Your task to perform on an android device: When is my next appointment? Image 0: 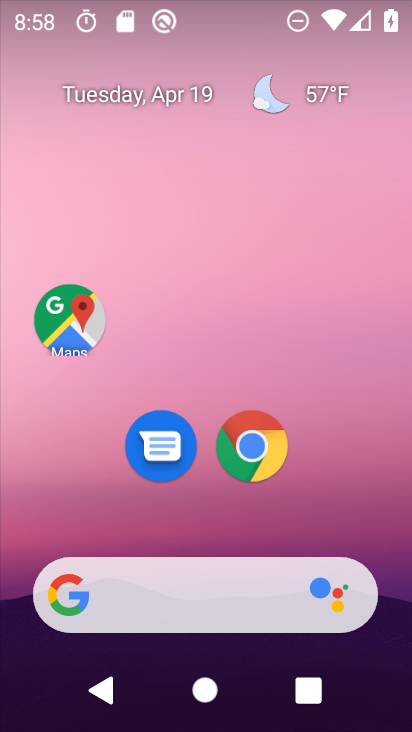
Step 0: press home button
Your task to perform on an android device: When is my next appointment? Image 1: 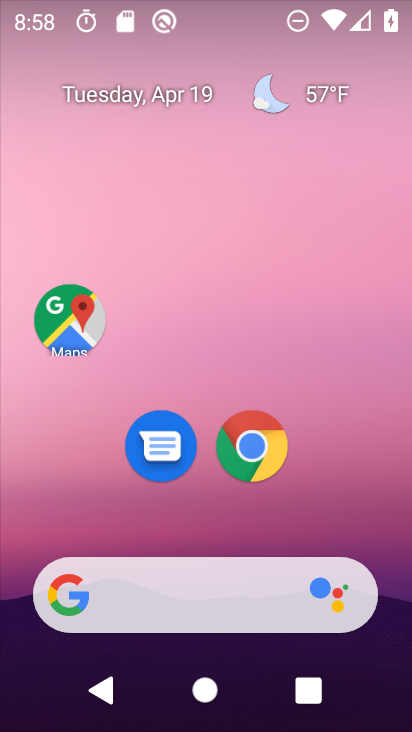
Step 1: drag from (331, 514) to (271, 130)
Your task to perform on an android device: When is my next appointment? Image 2: 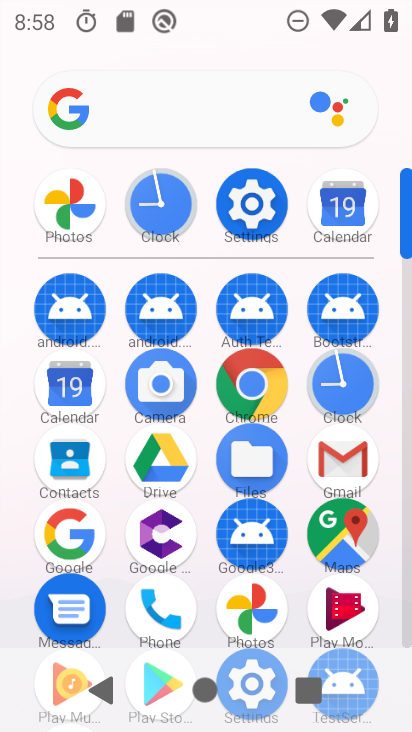
Step 2: click (347, 214)
Your task to perform on an android device: When is my next appointment? Image 3: 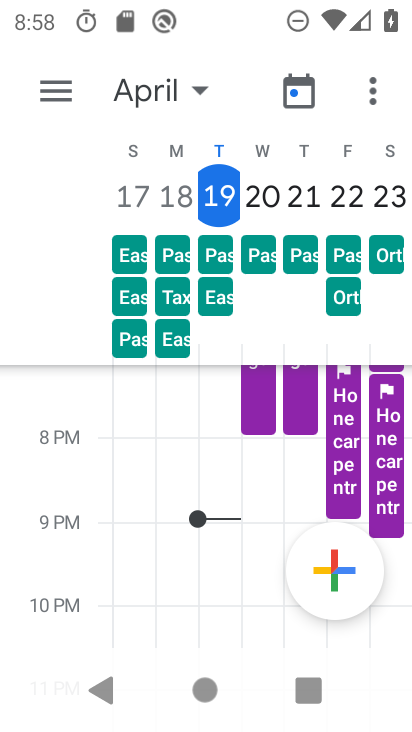
Step 3: drag from (208, 606) to (217, 375)
Your task to perform on an android device: When is my next appointment? Image 4: 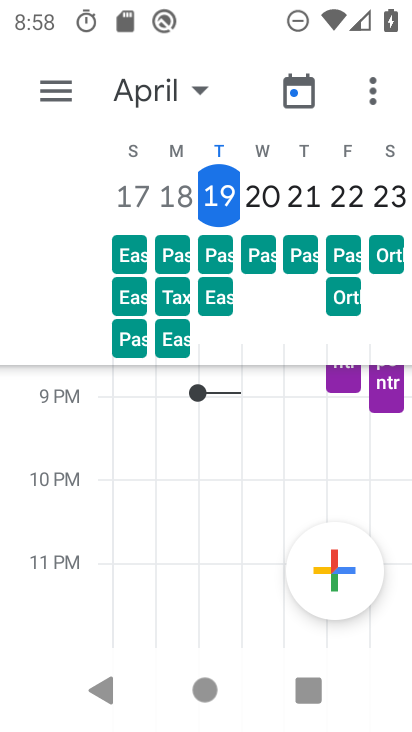
Step 4: drag from (218, 629) to (227, 394)
Your task to perform on an android device: When is my next appointment? Image 5: 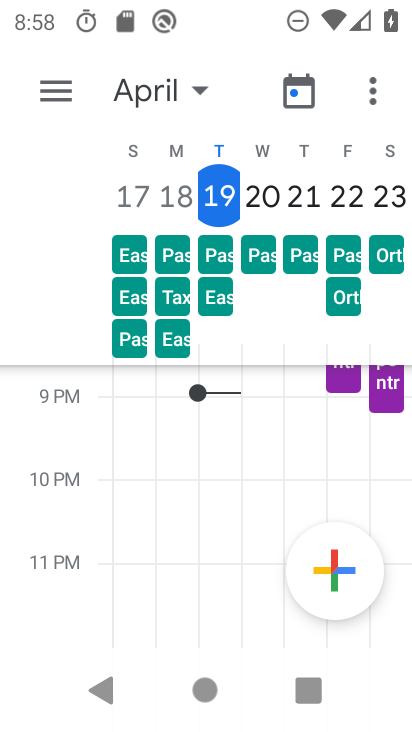
Step 5: click (225, 619)
Your task to perform on an android device: When is my next appointment? Image 6: 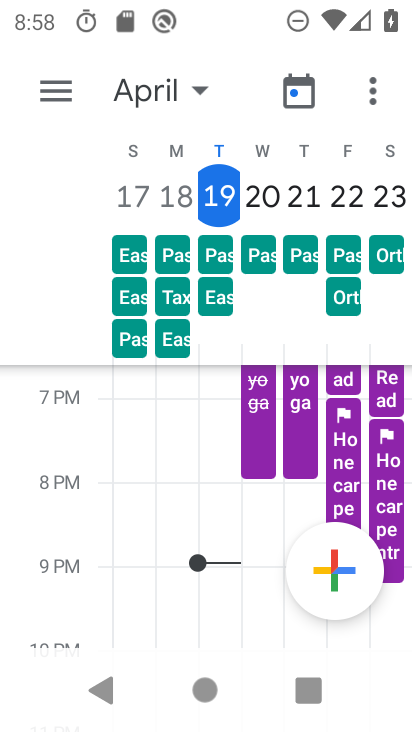
Step 6: drag from (253, 432) to (233, 609)
Your task to perform on an android device: When is my next appointment? Image 7: 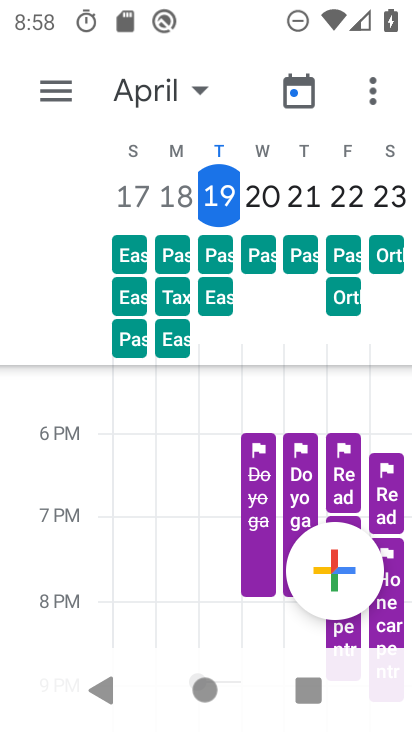
Step 7: drag from (219, 413) to (205, 626)
Your task to perform on an android device: When is my next appointment? Image 8: 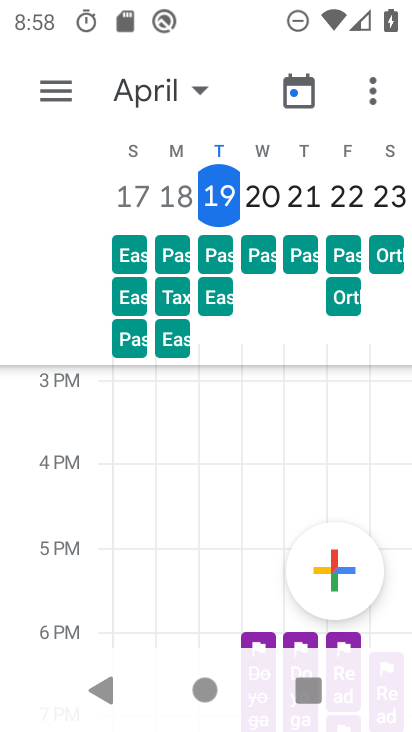
Step 8: drag from (211, 420) to (212, 595)
Your task to perform on an android device: When is my next appointment? Image 9: 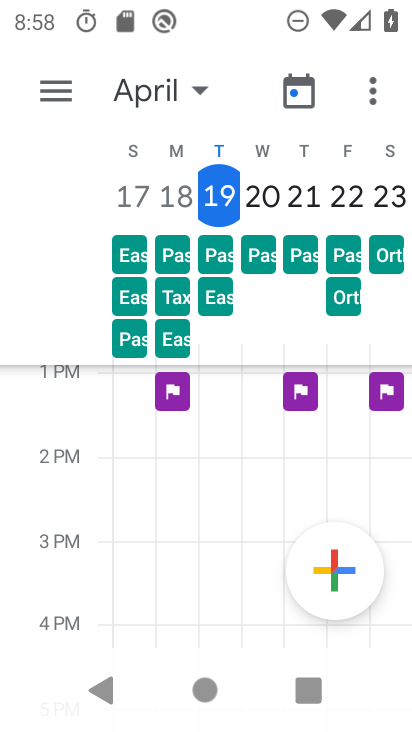
Step 9: drag from (234, 409) to (214, 607)
Your task to perform on an android device: When is my next appointment? Image 10: 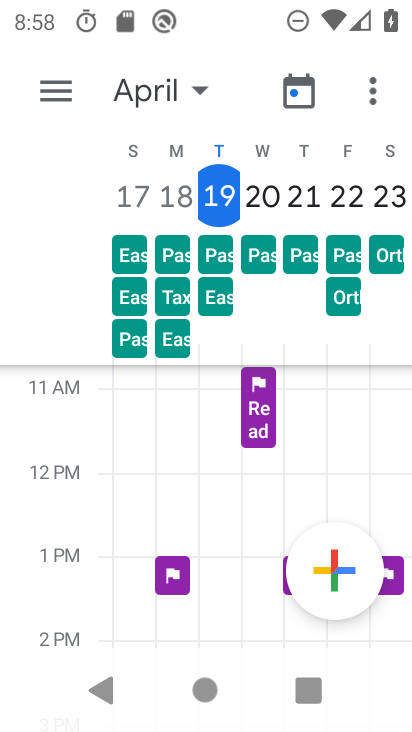
Step 10: drag from (252, 435) to (216, 604)
Your task to perform on an android device: When is my next appointment? Image 11: 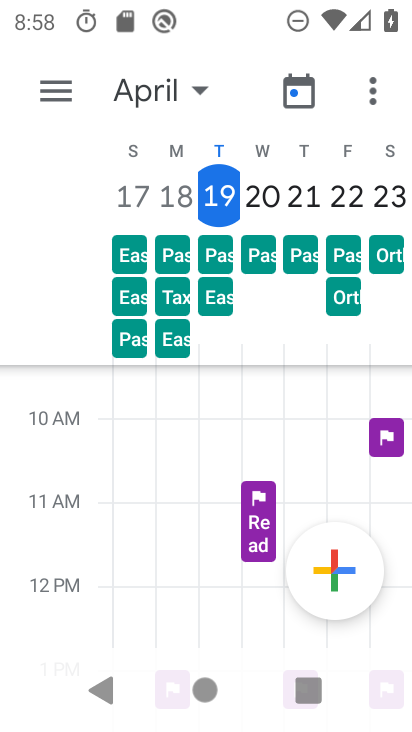
Step 11: drag from (225, 420) to (201, 613)
Your task to perform on an android device: When is my next appointment? Image 12: 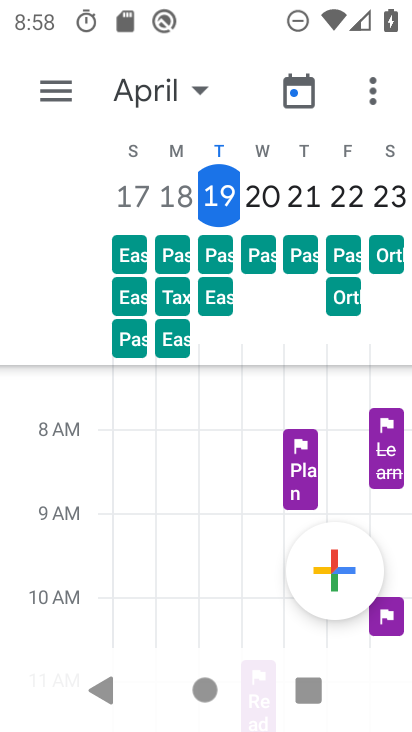
Step 12: drag from (228, 409) to (221, 560)
Your task to perform on an android device: When is my next appointment? Image 13: 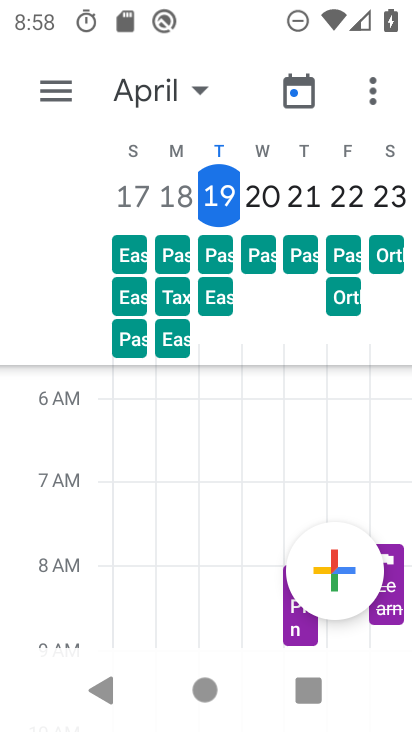
Step 13: drag from (261, 443) to (255, 541)
Your task to perform on an android device: When is my next appointment? Image 14: 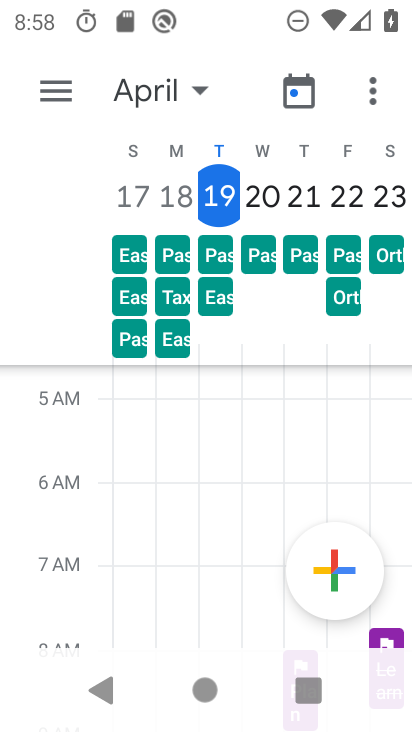
Step 14: drag from (248, 398) to (251, 618)
Your task to perform on an android device: When is my next appointment? Image 15: 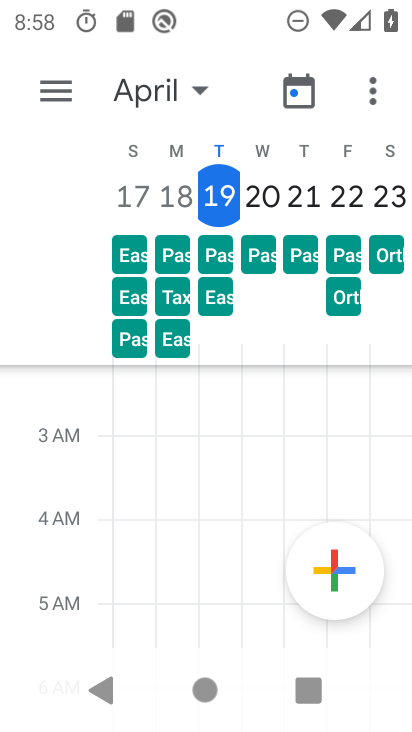
Step 15: drag from (277, 402) to (256, 623)
Your task to perform on an android device: When is my next appointment? Image 16: 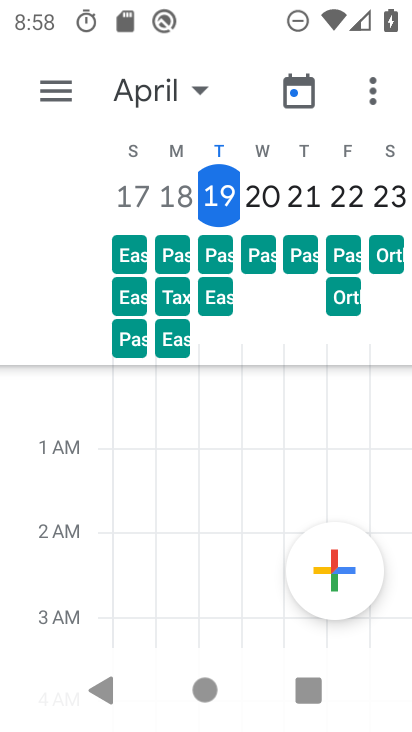
Step 16: drag from (242, 410) to (213, 624)
Your task to perform on an android device: When is my next appointment? Image 17: 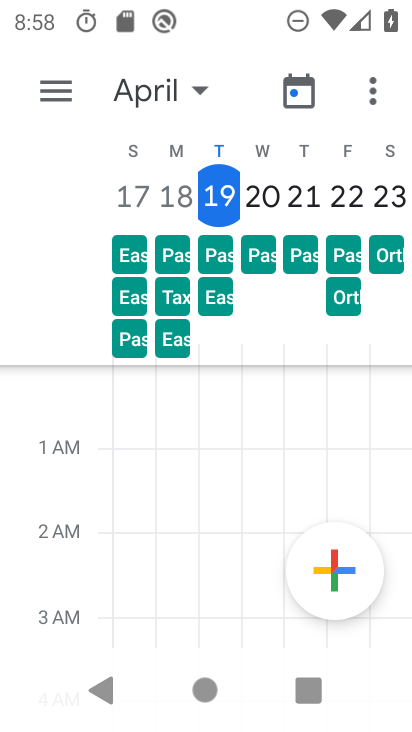
Step 17: drag from (251, 430) to (249, 84)
Your task to perform on an android device: When is my next appointment? Image 18: 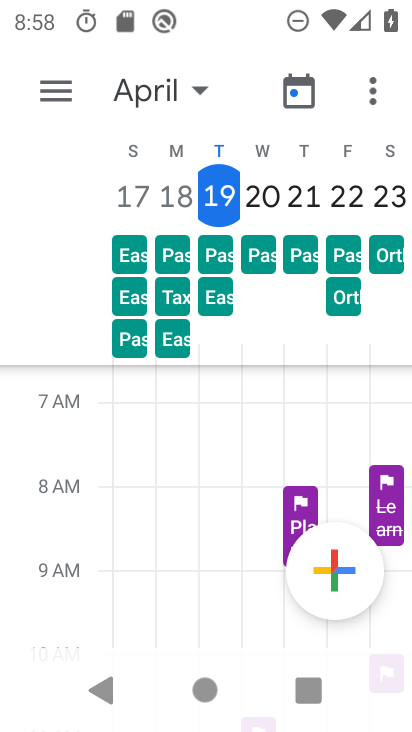
Step 18: drag from (210, 596) to (209, 295)
Your task to perform on an android device: When is my next appointment? Image 19: 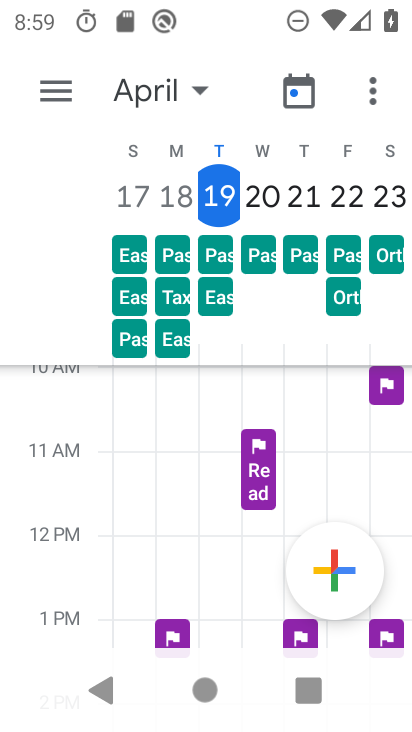
Step 19: click (270, 468)
Your task to perform on an android device: When is my next appointment? Image 20: 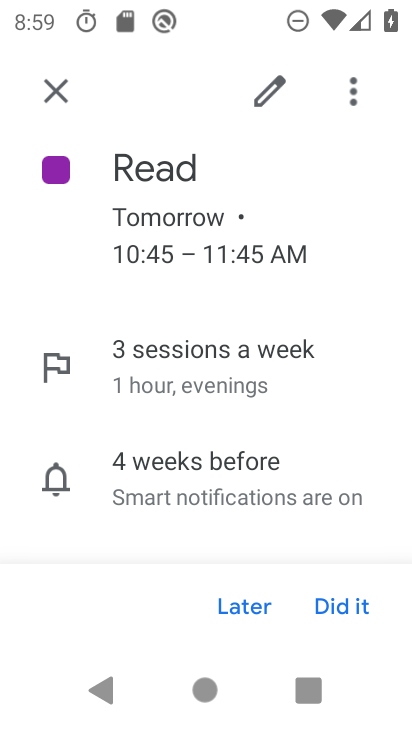
Step 20: task complete